Your task to perform on an android device: check out phone information Image 0: 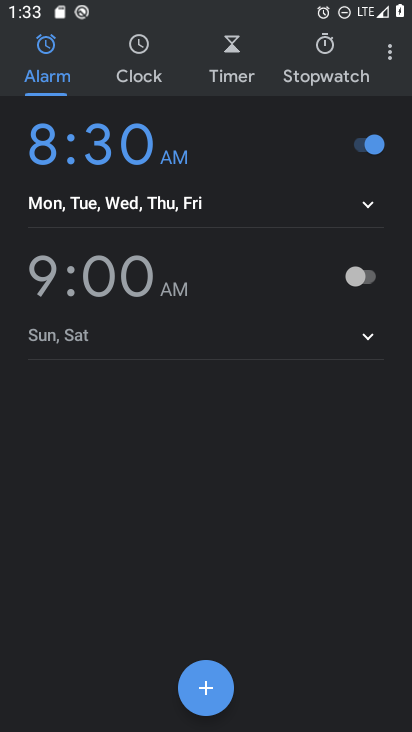
Step 0: press home button
Your task to perform on an android device: check out phone information Image 1: 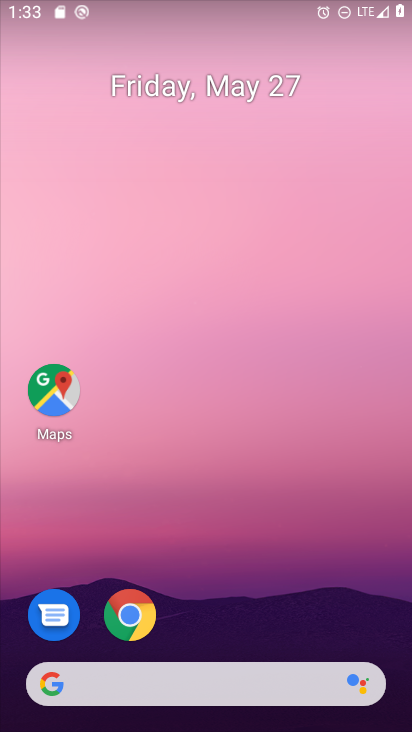
Step 1: drag from (164, 652) to (293, 116)
Your task to perform on an android device: check out phone information Image 2: 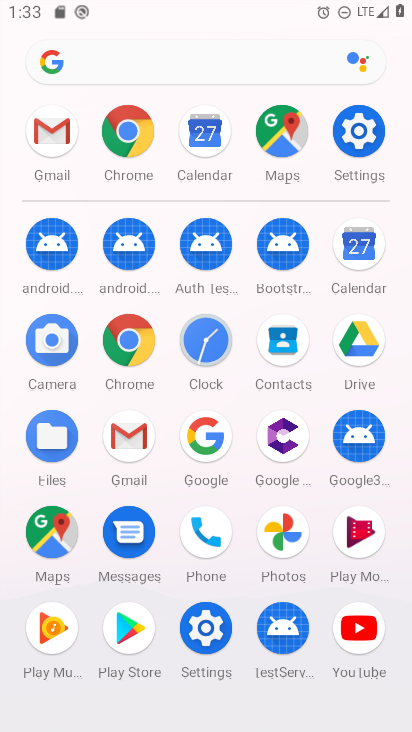
Step 2: click (356, 134)
Your task to perform on an android device: check out phone information Image 3: 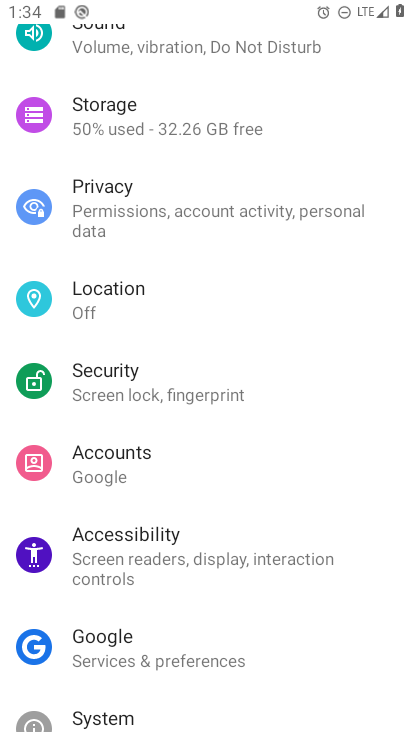
Step 3: drag from (174, 670) to (201, 306)
Your task to perform on an android device: check out phone information Image 4: 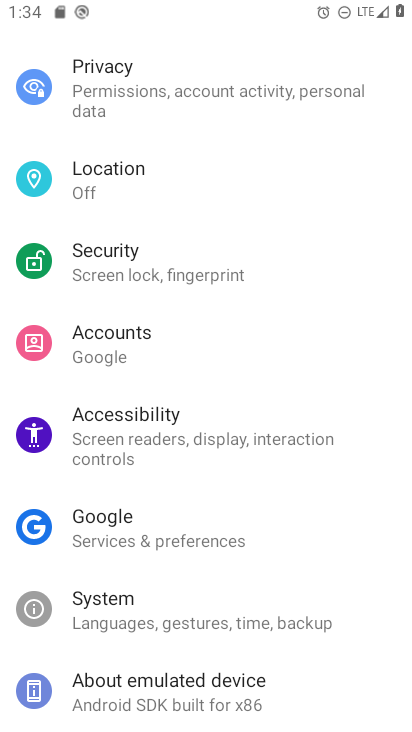
Step 4: click (246, 689)
Your task to perform on an android device: check out phone information Image 5: 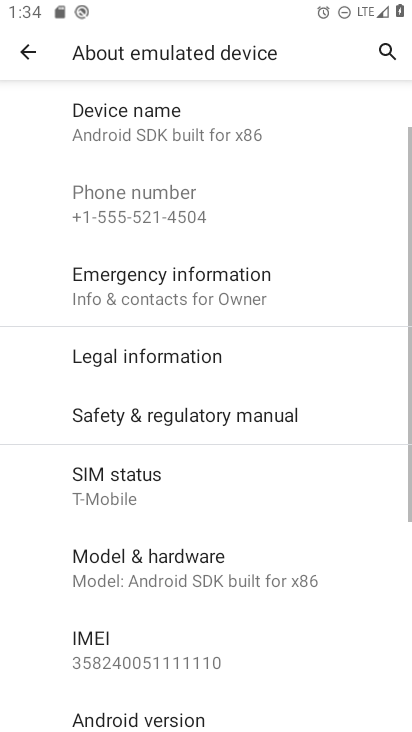
Step 5: task complete